Your task to perform on an android device: allow notifications from all sites in the chrome app Image 0: 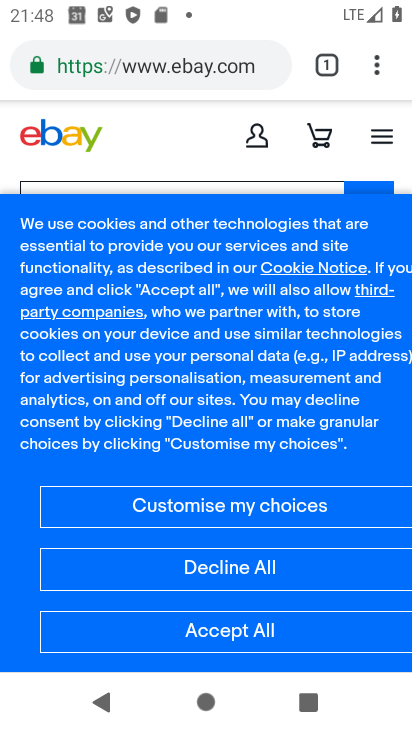
Step 0: press home button
Your task to perform on an android device: allow notifications from all sites in the chrome app Image 1: 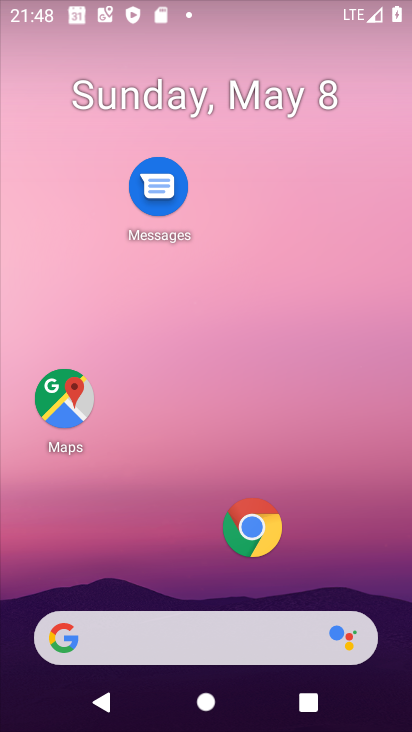
Step 1: click (252, 531)
Your task to perform on an android device: allow notifications from all sites in the chrome app Image 2: 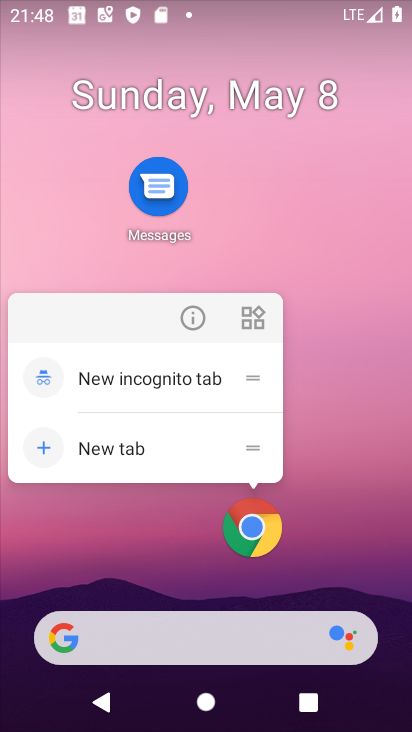
Step 2: click (251, 524)
Your task to perform on an android device: allow notifications from all sites in the chrome app Image 3: 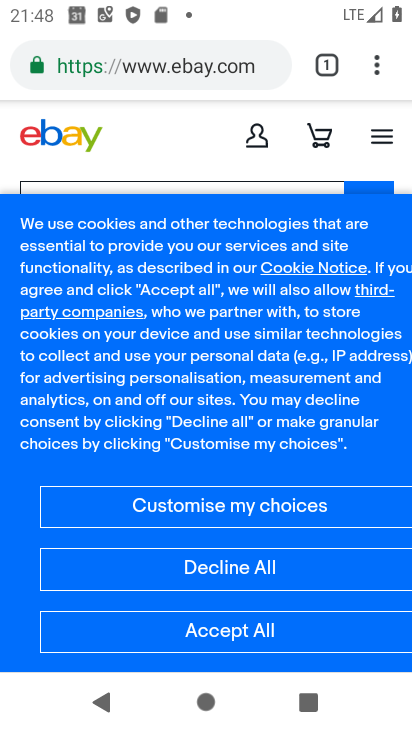
Step 3: click (367, 69)
Your task to perform on an android device: allow notifications from all sites in the chrome app Image 4: 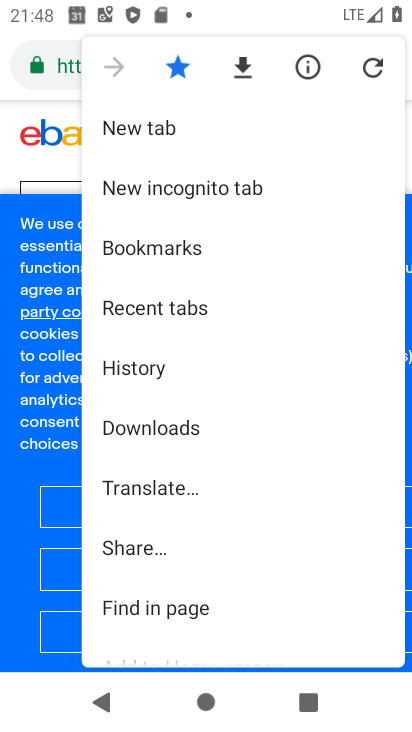
Step 4: drag from (86, 540) to (136, 188)
Your task to perform on an android device: allow notifications from all sites in the chrome app Image 5: 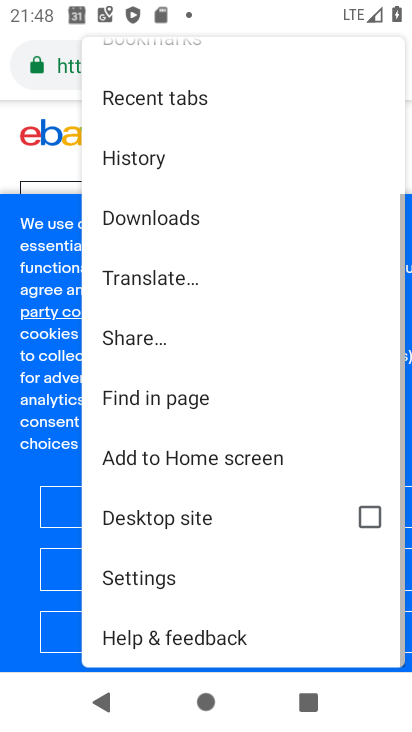
Step 5: click (150, 593)
Your task to perform on an android device: allow notifications from all sites in the chrome app Image 6: 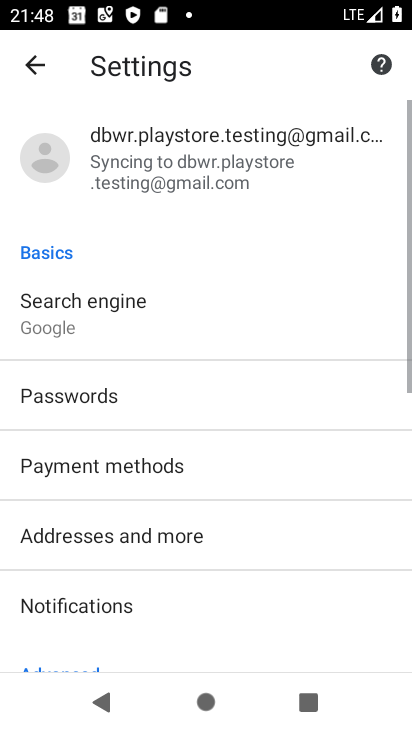
Step 6: drag from (225, 261) to (232, 158)
Your task to perform on an android device: allow notifications from all sites in the chrome app Image 7: 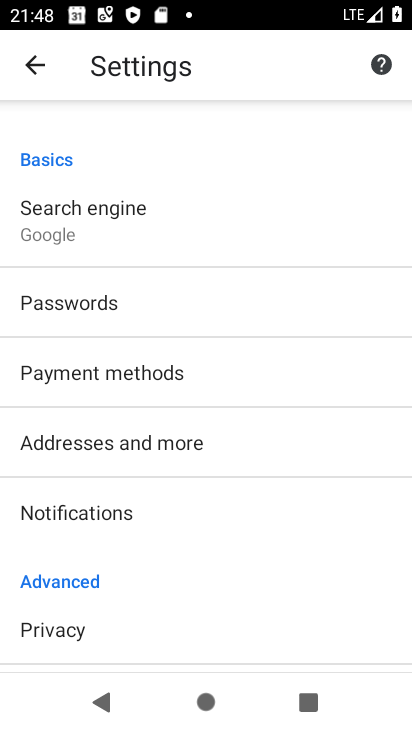
Step 7: drag from (191, 602) to (227, 231)
Your task to perform on an android device: allow notifications from all sites in the chrome app Image 8: 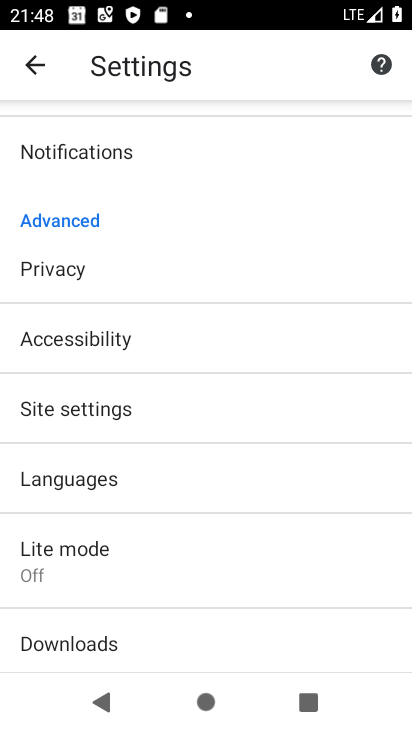
Step 8: click (91, 428)
Your task to perform on an android device: allow notifications from all sites in the chrome app Image 9: 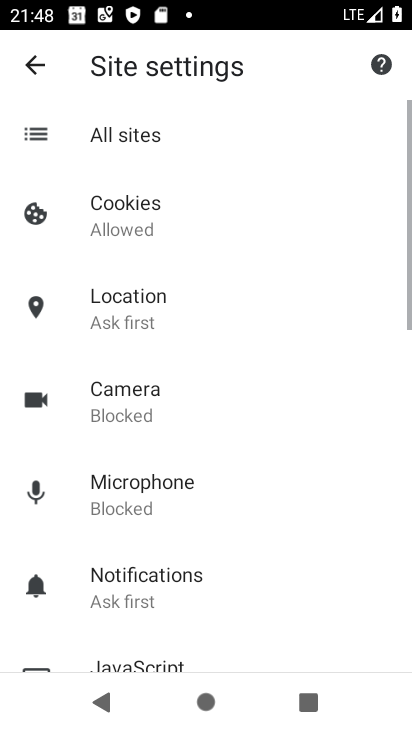
Step 9: click (165, 566)
Your task to perform on an android device: allow notifications from all sites in the chrome app Image 10: 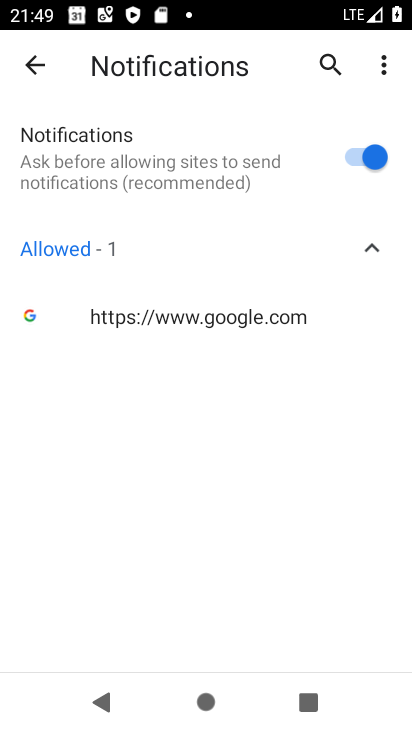
Step 10: task complete